Your task to perform on an android device: Go to Yahoo.com Image 0: 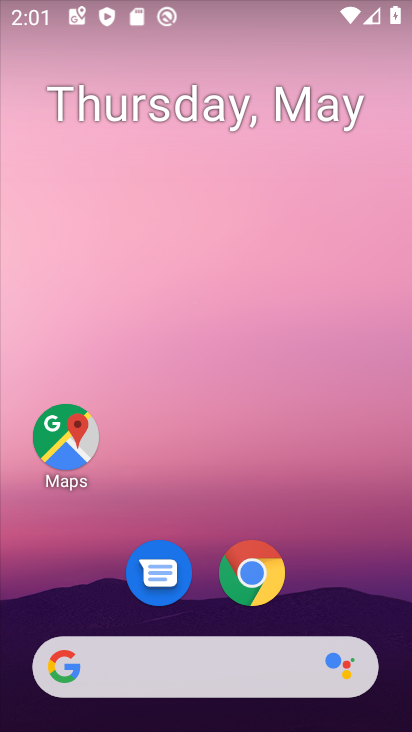
Step 0: click (263, 581)
Your task to perform on an android device: Go to Yahoo.com Image 1: 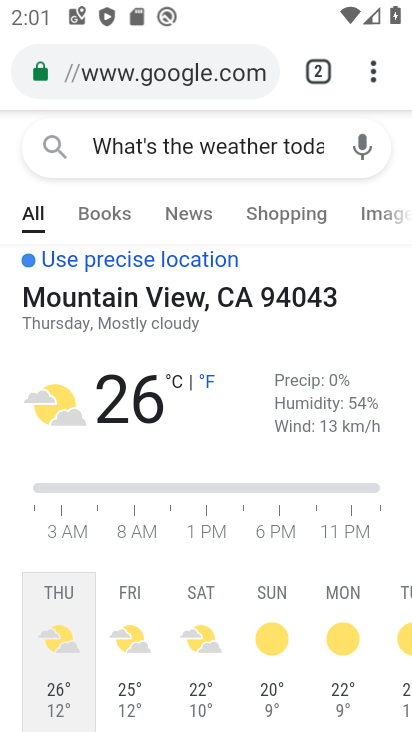
Step 1: click (177, 71)
Your task to perform on an android device: Go to Yahoo.com Image 2: 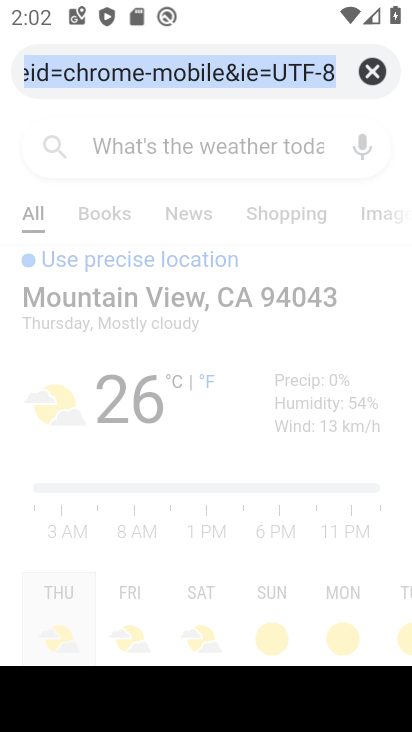
Step 2: type "yahoo.com"
Your task to perform on an android device: Go to Yahoo.com Image 3: 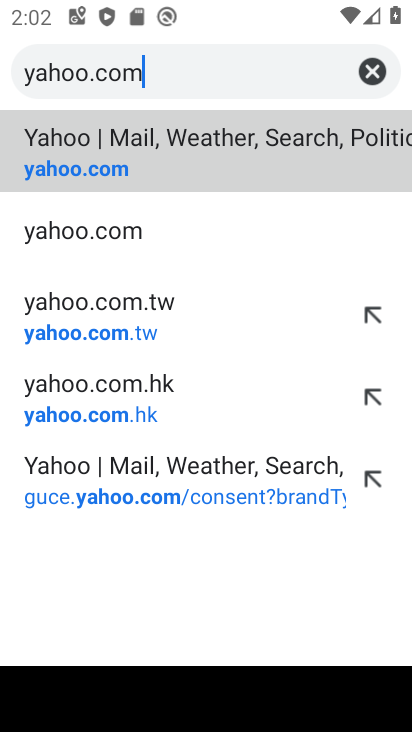
Step 3: click (81, 171)
Your task to perform on an android device: Go to Yahoo.com Image 4: 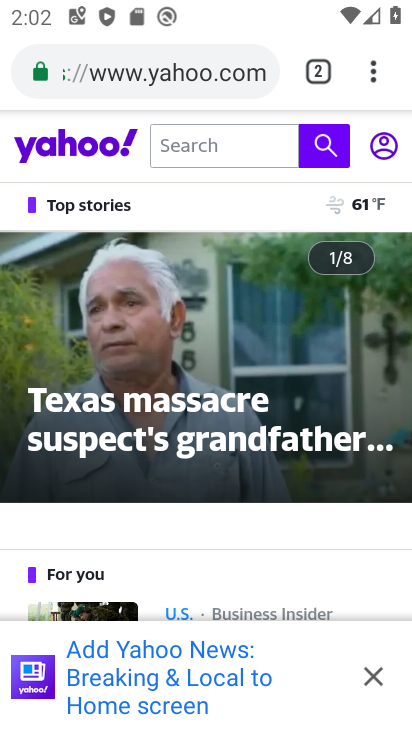
Step 4: task complete